Your task to perform on an android device: Open location settings Image 0: 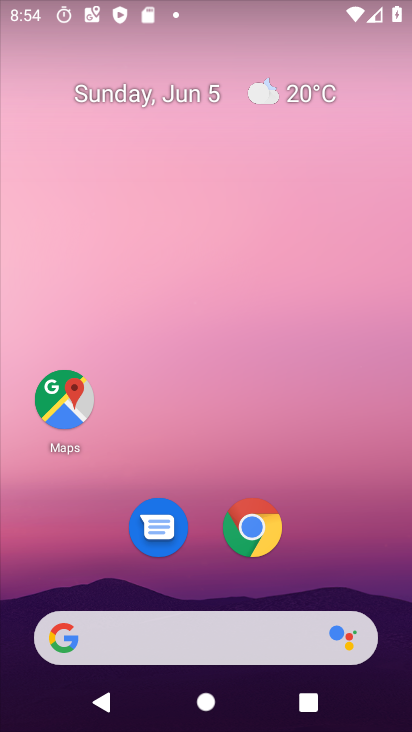
Step 0: drag from (408, 452) to (288, 0)
Your task to perform on an android device: Open location settings Image 1: 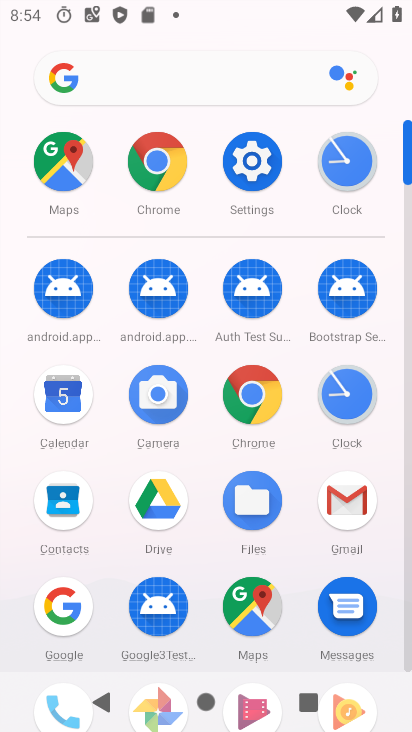
Step 1: click (250, 169)
Your task to perform on an android device: Open location settings Image 2: 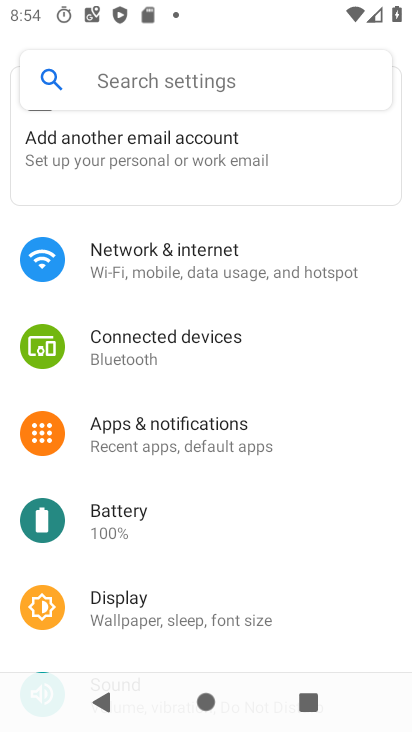
Step 2: drag from (229, 606) to (156, 170)
Your task to perform on an android device: Open location settings Image 3: 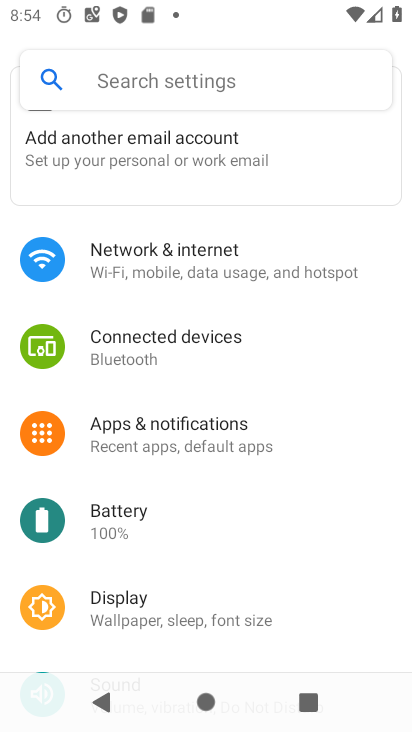
Step 3: drag from (238, 513) to (304, 257)
Your task to perform on an android device: Open location settings Image 4: 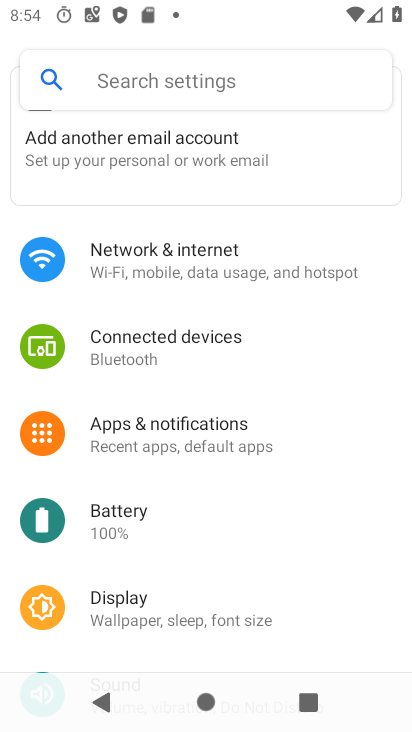
Step 4: drag from (261, 591) to (177, 218)
Your task to perform on an android device: Open location settings Image 5: 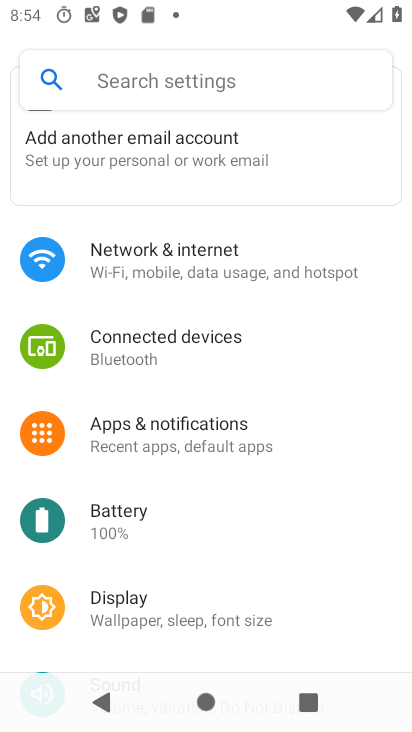
Step 5: drag from (176, 591) to (133, 166)
Your task to perform on an android device: Open location settings Image 6: 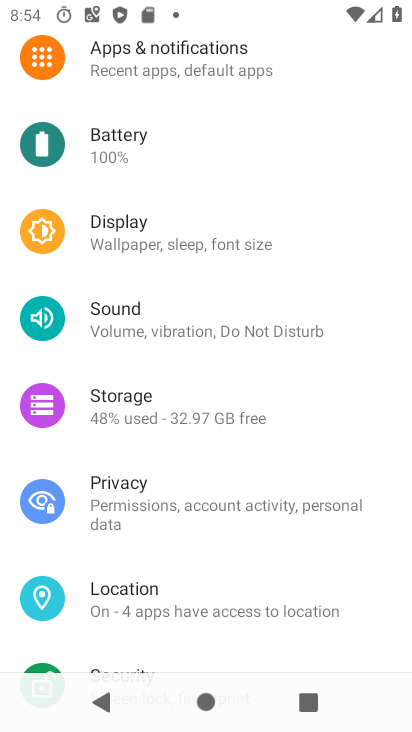
Step 6: click (159, 589)
Your task to perform on an android device: Open location settings Image 7: 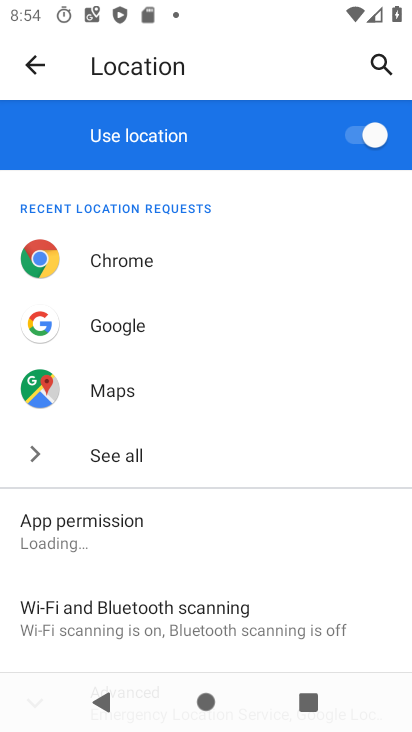
Step 7: task complete